Your task to perform on an android device: toggle translation in the chrome app Image 0: 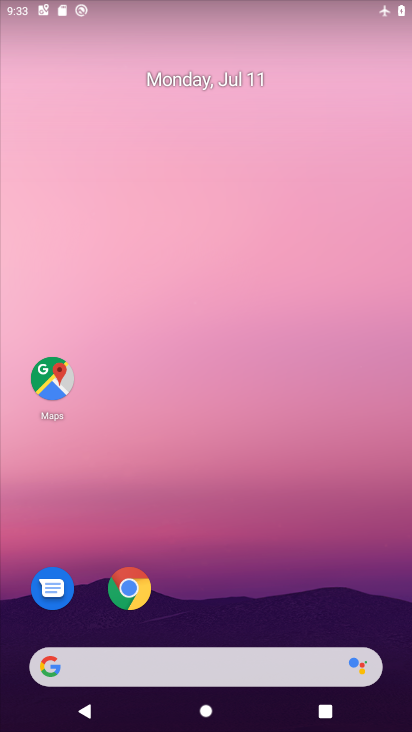
Step 0: drag from (236, 622) to (239, 146)
Your task to perform on an android device: toggle translation in the chrome app Image 1: 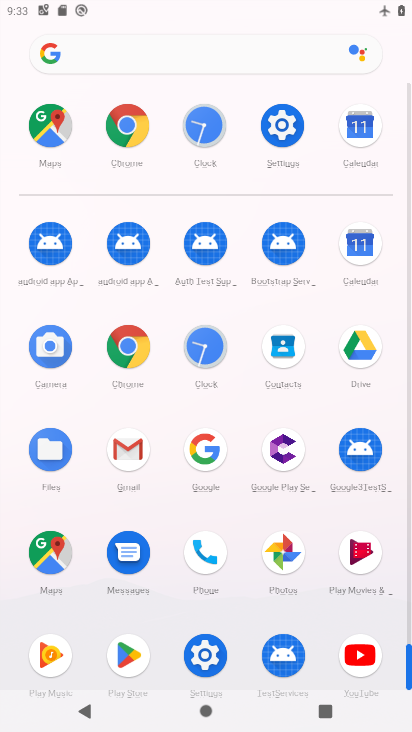
Step 1: click (127, 333)
Your task to perform on an android device: toggle translation in the chrome app Image 2: 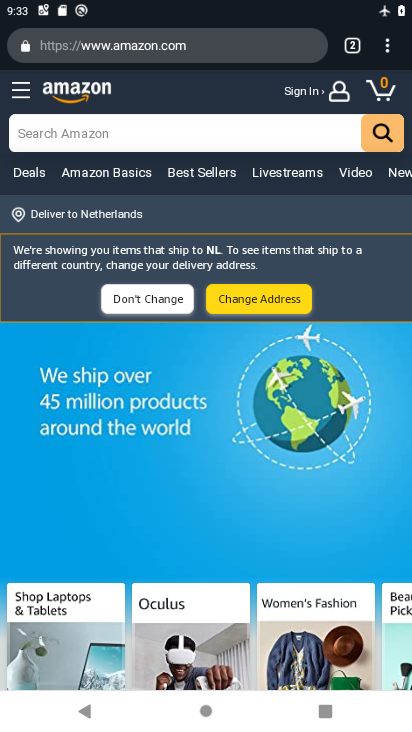
Step 2: click (394, 40)
Your task to perform on an android device: toggle translation in the chrome app Image 3: 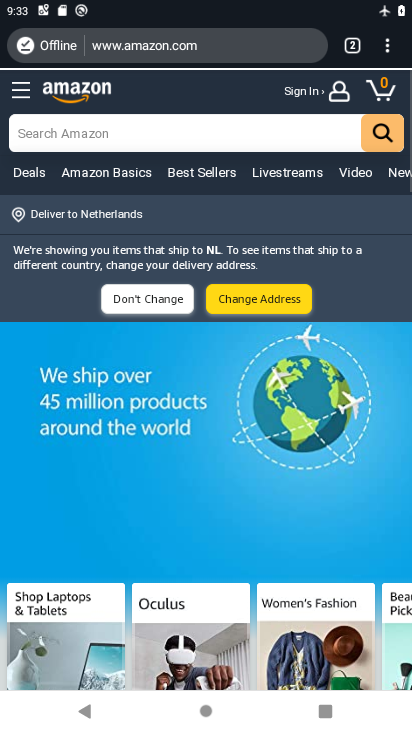
Step 3: click (394, 40)
Your task to perform on an android device: toggle translation in the chrome app Image 4: 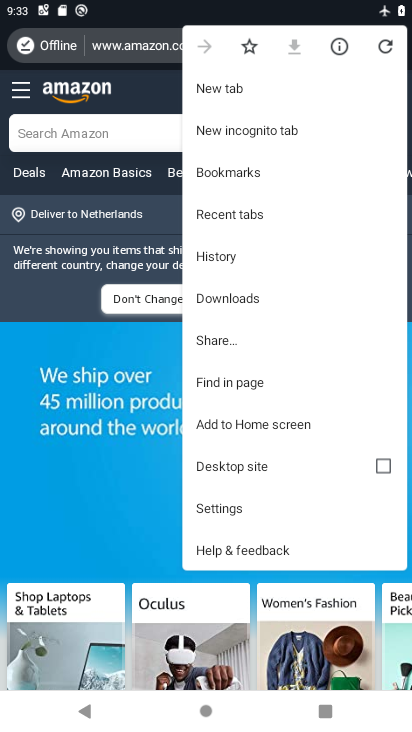
Step 4: click (245, 498)
Your task to perform on an android device: toggle translation in the chrome app Image 5: 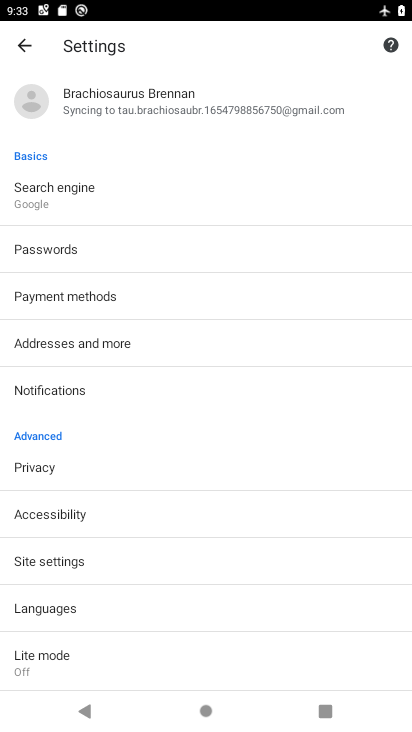
Step 5: click (63, 615)
Your task to perform on an android device: toggle translation in the chrome app Image 6: 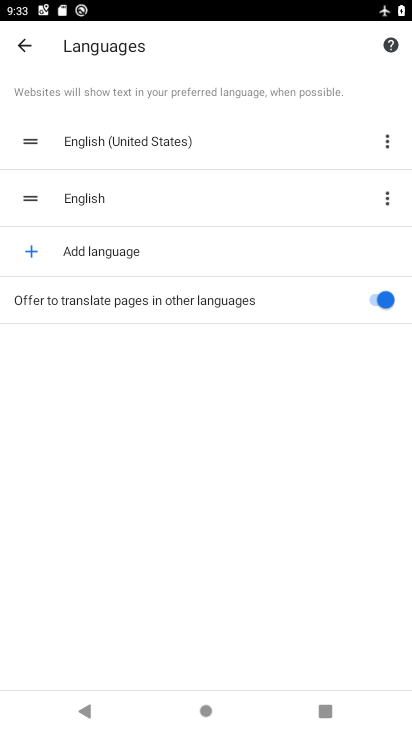
Step 6: click (374, 299)
Your task to perform on an android device: toggle translation in the chrome app Image 7: 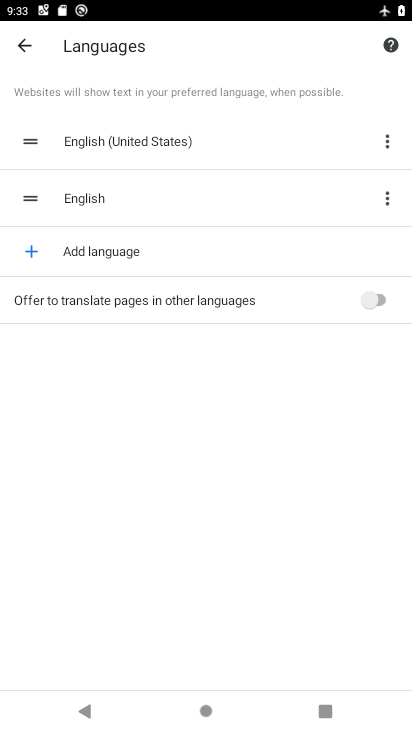
Step 7: task complete